Your task to perform on an android device: turn on translation in the chrome app Image 0: 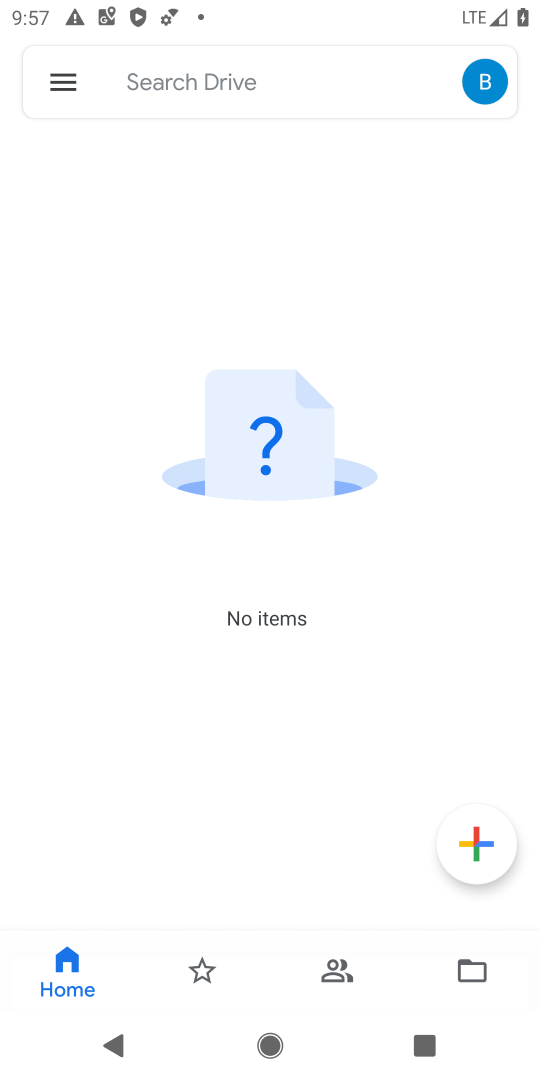
Step 0: press back button
Your task to perform on an android device: turn on translation in the chrome app Image 1: 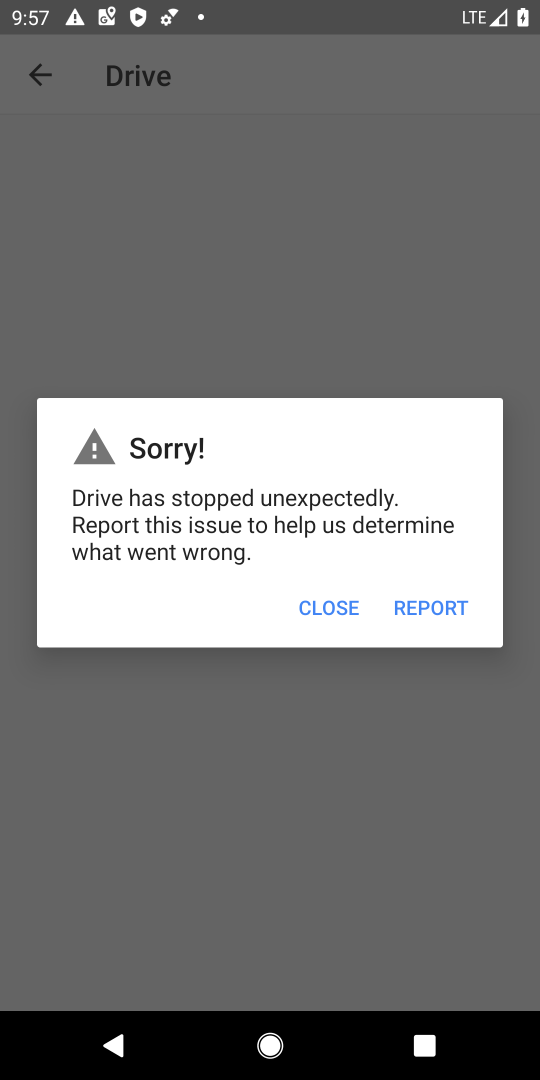
Step 1: press back button
Your task to perform on an android device: turn on translation in the chrome app Image 2: 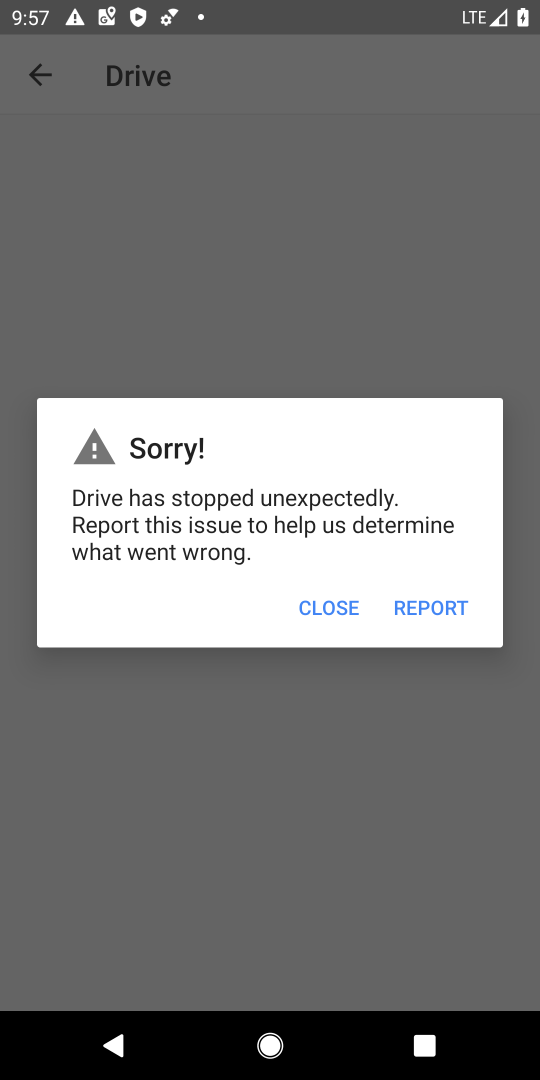
Step 2: press home button
Your task to perform on an android device: turn on translation in the chrome app Image 3: 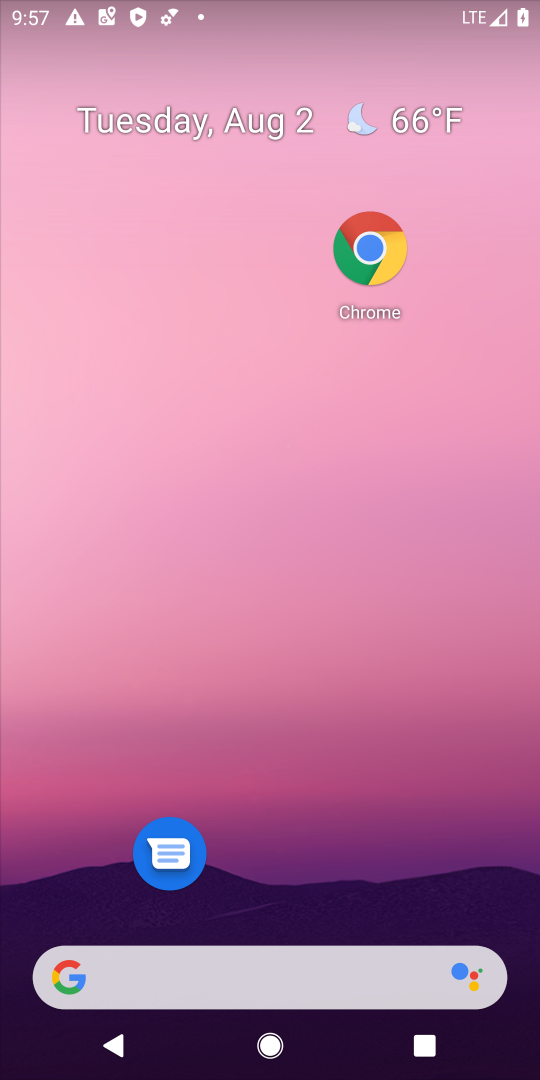
Step 3: drag from (282, 923) to (276, 28)
Your task to perform on an android device: turn on translation in the chrome app Image 4: 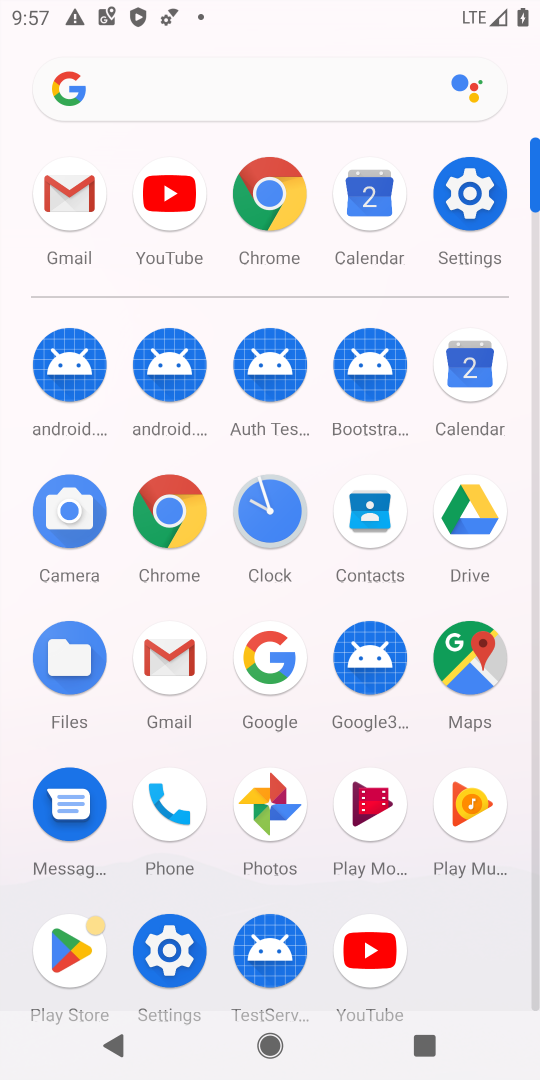
Step 4: click (290, 208)
Your task to perform on an android device: turn on translation in the chrome app Image 5: 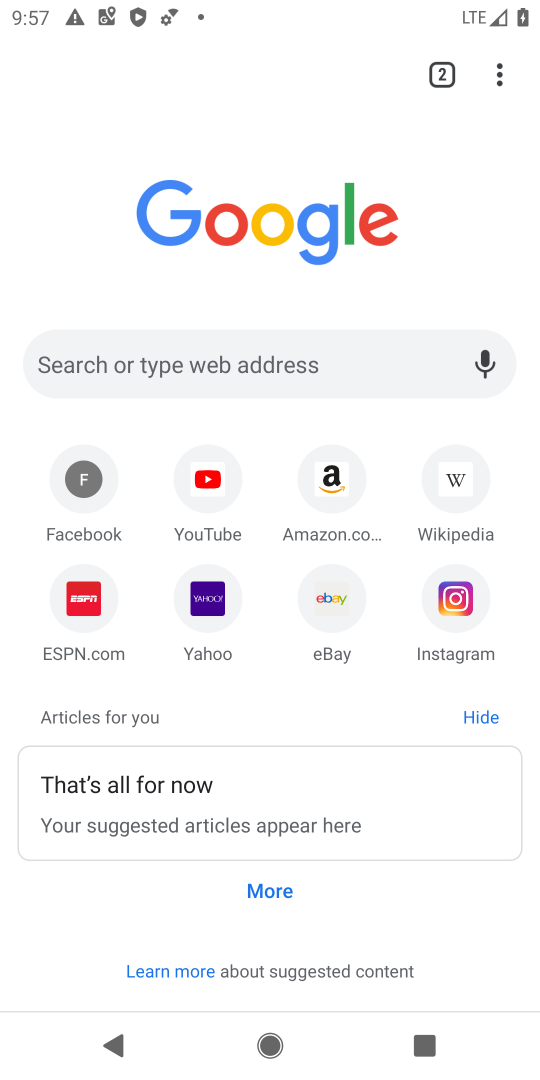
Step 5: drag from (494, 73) to (208, 623)
Your task to perform on an android device: turn on translation in the chrome app Image 6: 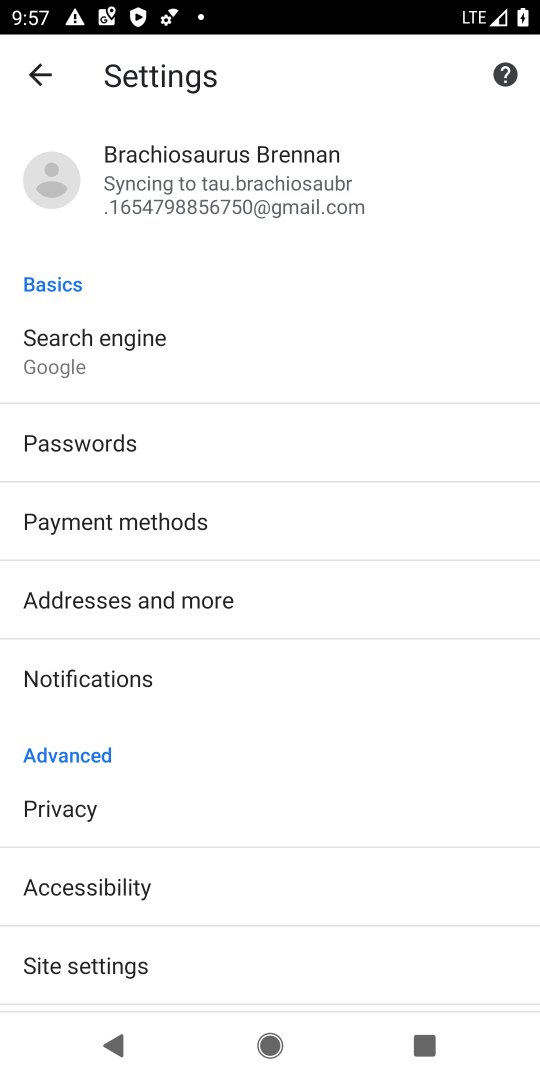
Step 6: drag from (143, 880) to (143, 180)
Your task to perform on an android device: turn on translation in the chrome app Image 7: 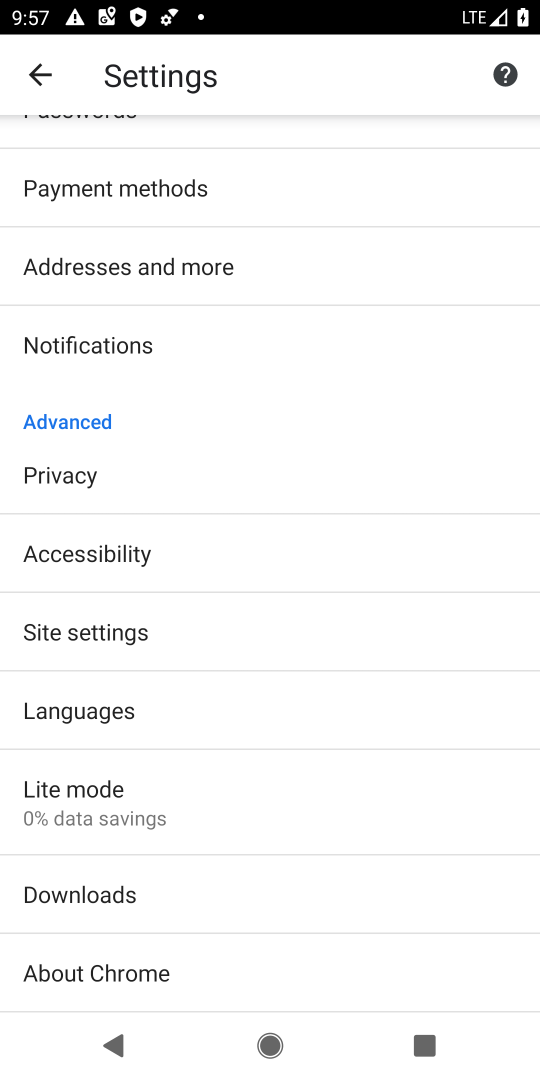
Step 7: click (97, 702)
Your task to perform on an android device: turn on translation in the chrome app Image 8: 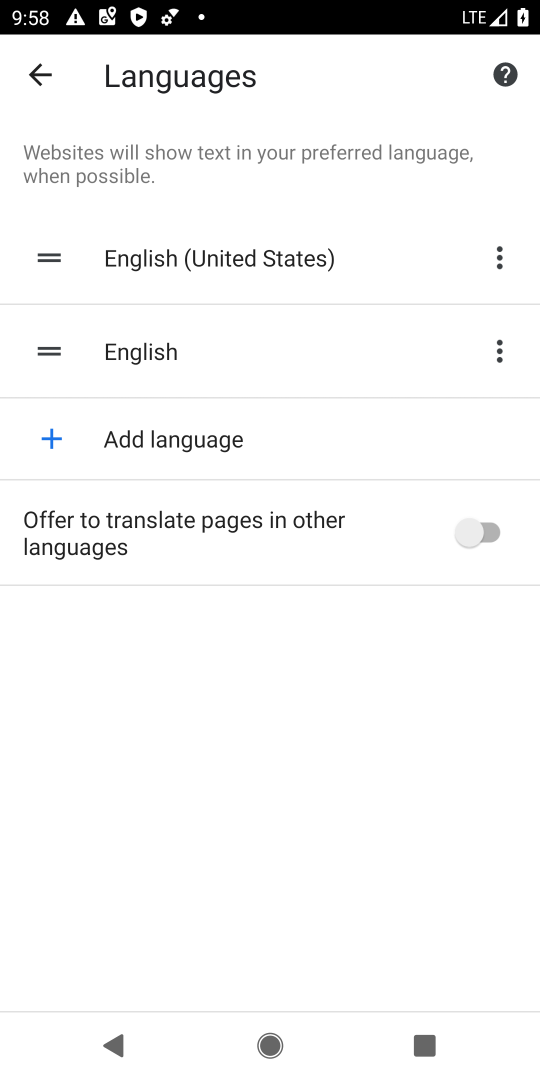
Step 8: click (489, 529)
Your task to perform on an android device: turn on translation in the chrome app Image 9: 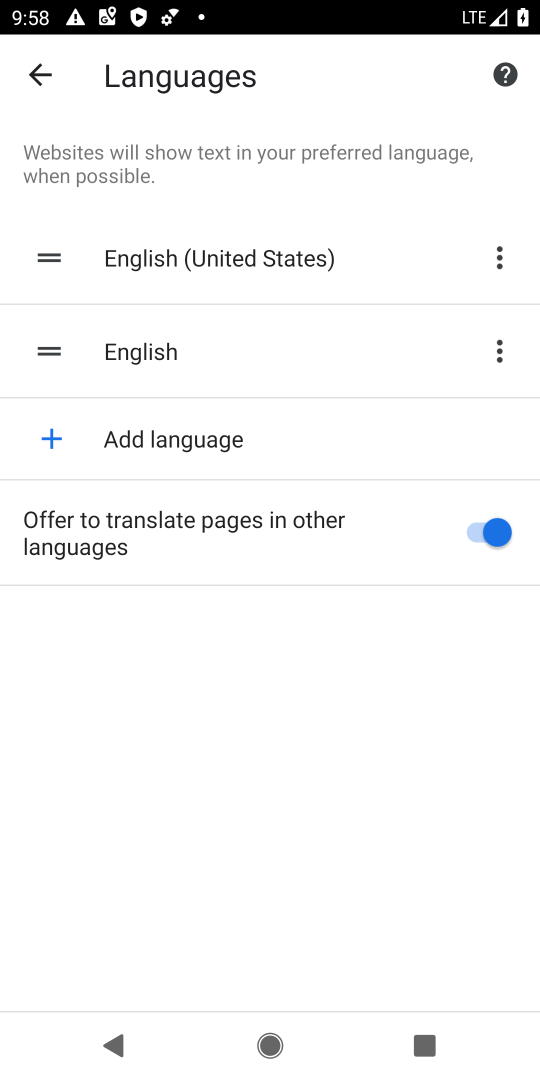
Step 9: task complete